Your task to perform on an android device: set the timer Image 0: 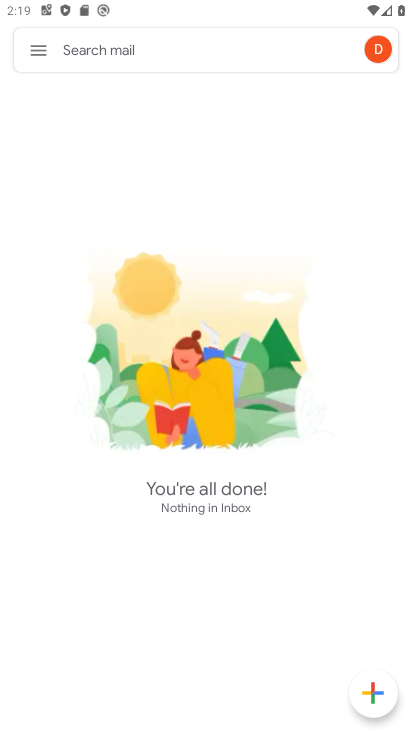
Step 0: press back button
Your task to perform on an android device: set the timer Image 1: 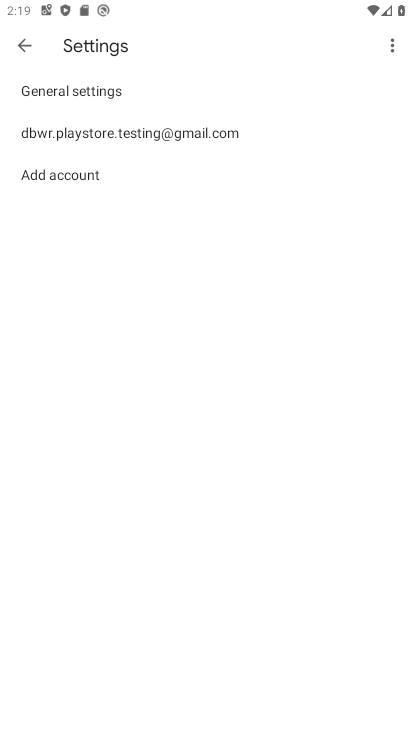
Step 1: press back button
Your task to perform on an android device: set the timer Image 2: 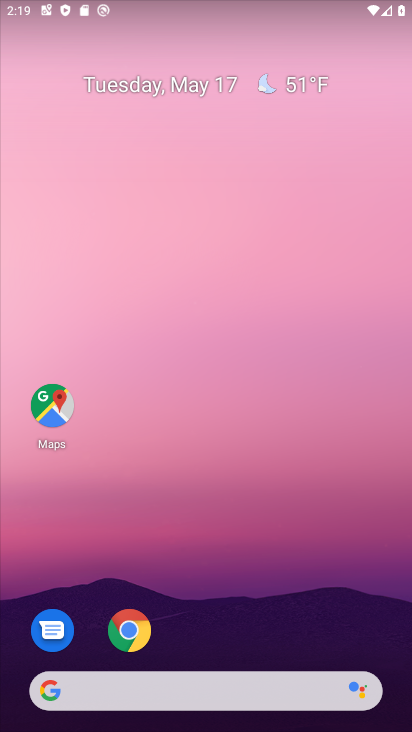
Step 2: drag from (234, 544) to (275, 125)
Your task to perform on an android device: set the timer Image 3: 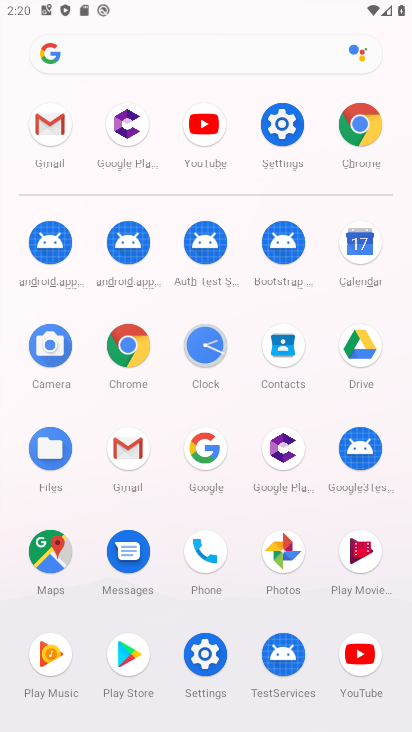
Step 3: click (194, 348)
Your task to perform on an android device: set the timer Image 4: 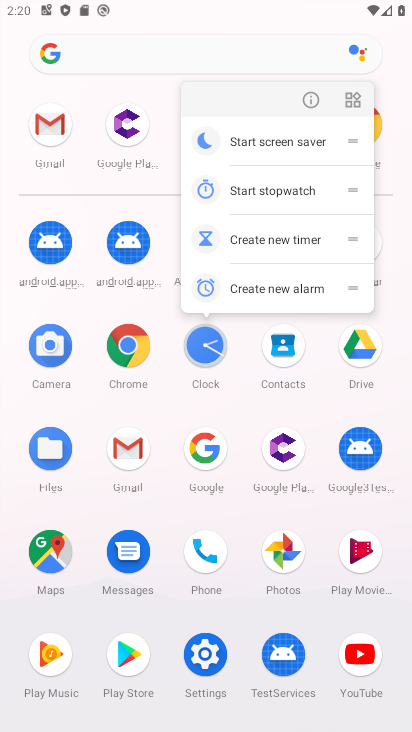
Step 4: click (203, 354)
Your task to perform on an android device: set the timer Image 5: 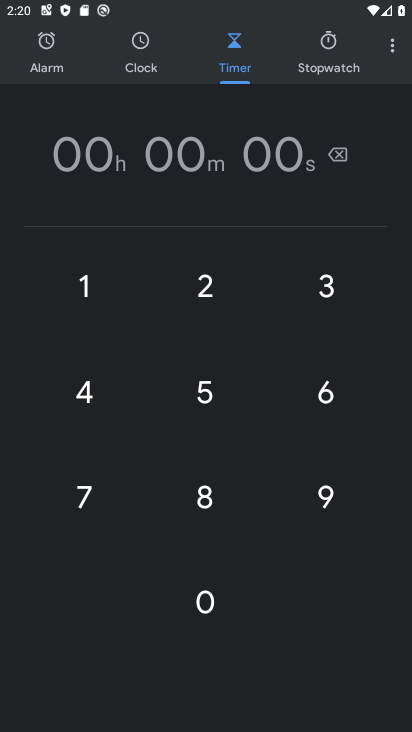
Step 5: click (208, 390)
Your task to perform on an android device: set the timer Image 6: 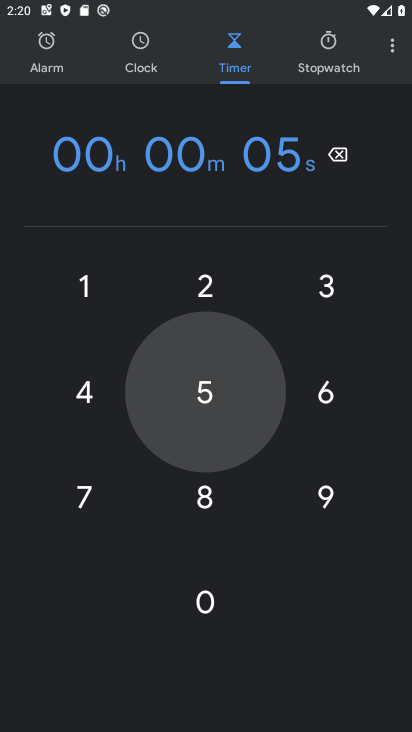
Step 6: click (209, 279)
Your task to perform on an android device: set the timer Image 7: 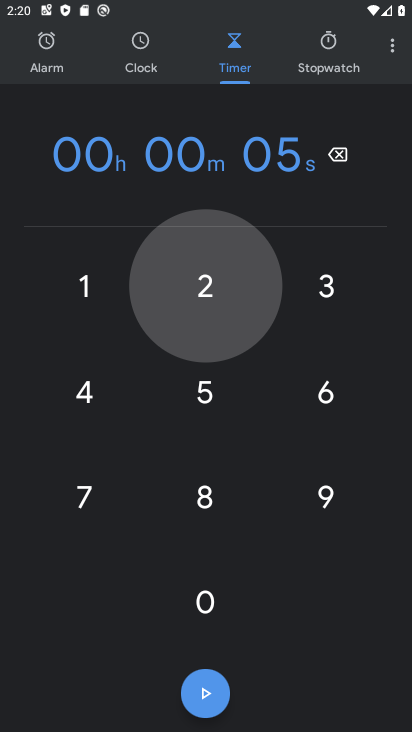
Step 7: click (281, 313)
Your task to perform on an android device: set the timer Image 8: 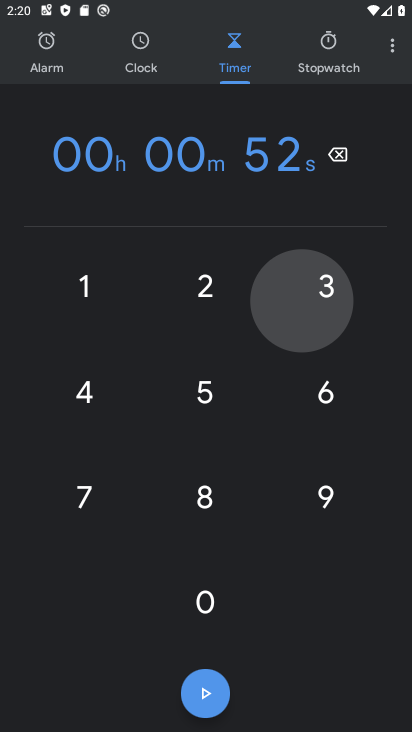
Step 8: click (135, 401)
Your task to perform on an android device: set the timer Image 9: 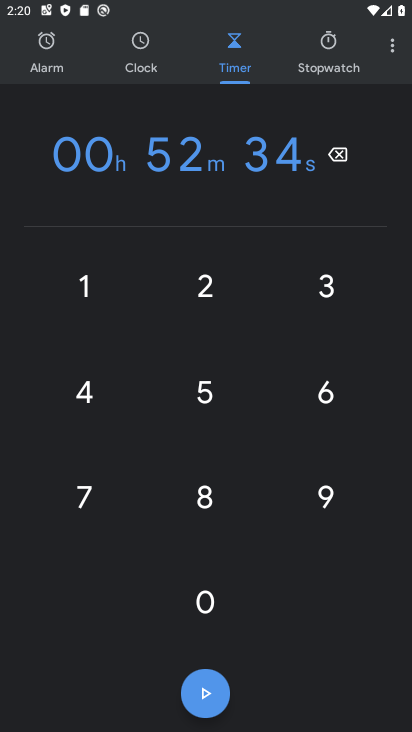
Step 9: task complete